Your task to perform on an android device: turn on notifications settings in the gmail app Image 0: 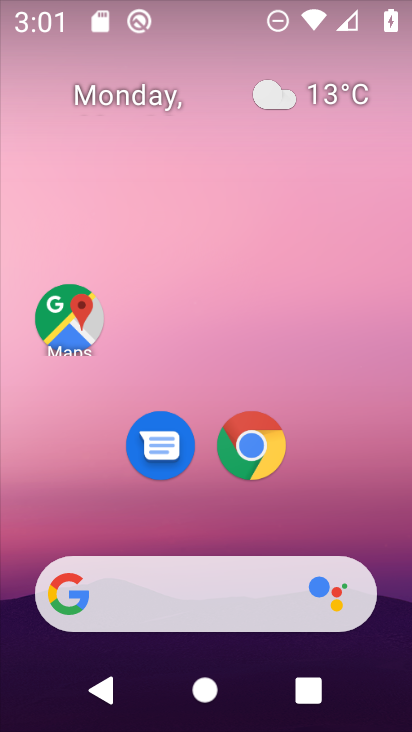
Step 0: drag from (378, 647) to (341, 15)
Your task to perform on an android device: turn on notifications settings in the gmail app Image 1: 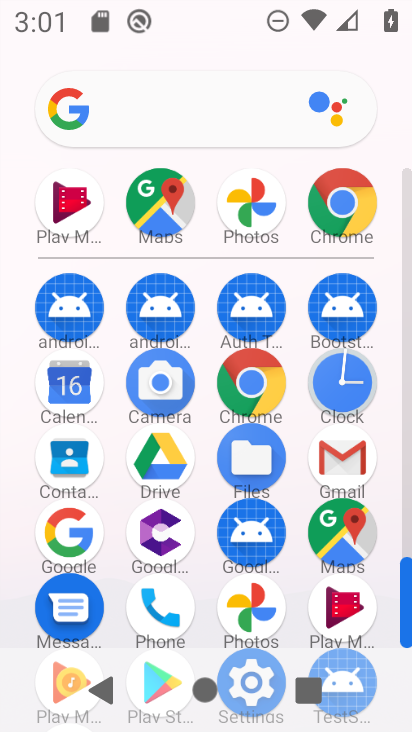
Step 1: click (344, 454)
Your task to perform on an android device: turn on notifications settings in the gmail app Image 2: 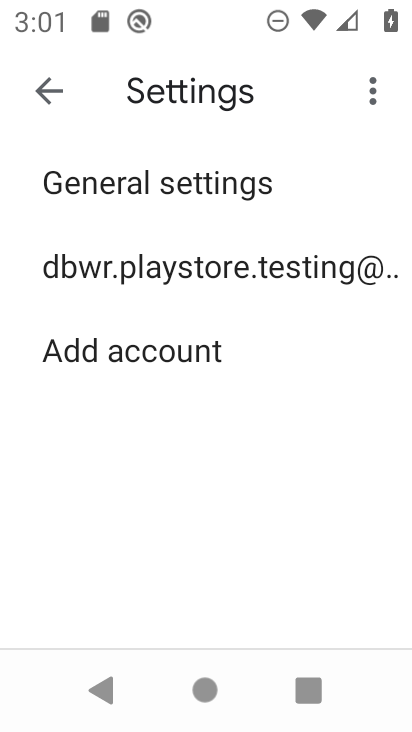
Step 2: click (181, 265)
Your task to perform on an android device: turn on notifications settings in the gmail app Image 3: 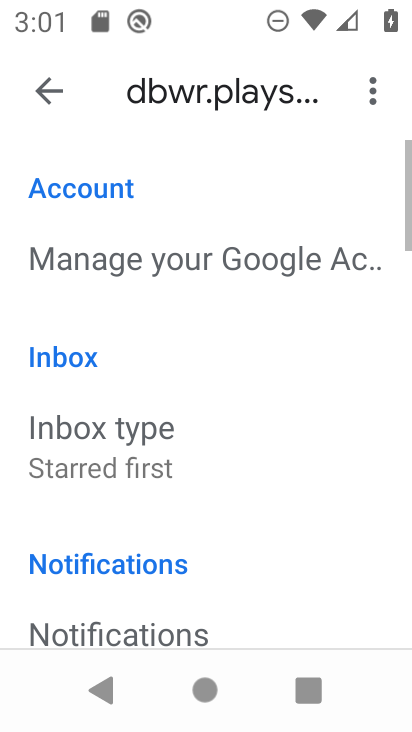
Step 3: click (93, 636)
Your task to perform on an android device: turn on notifications settings in the gmail app Image 4: 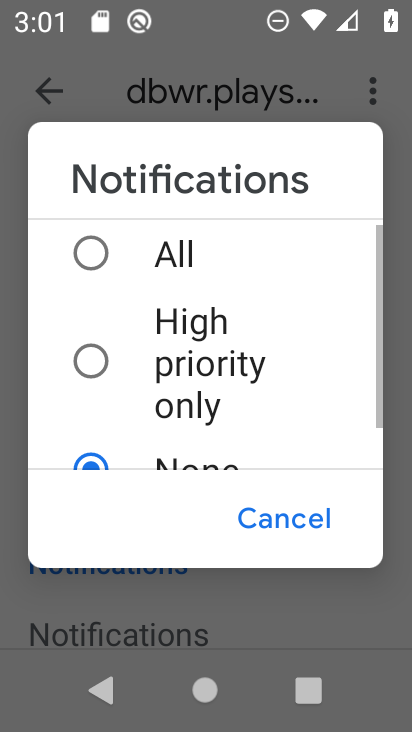
Step 4: click (108, 270)
Your task to perform on an android device: turn on notifications settings in the gmail app Image 5: 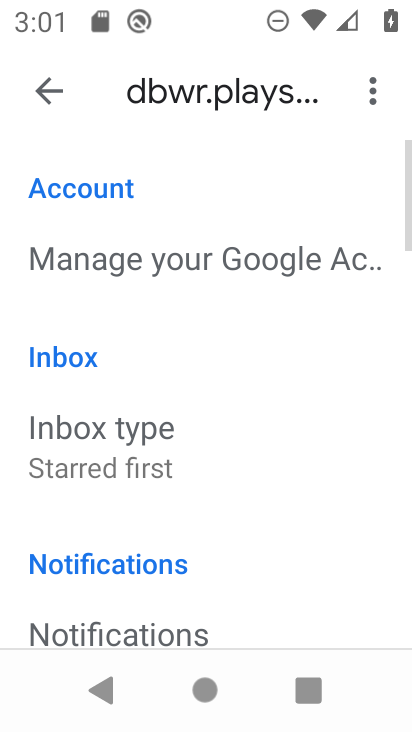
Step 5: task complete